Your task to perform on an android device: stop showing notifications on the lock screen Image 0: 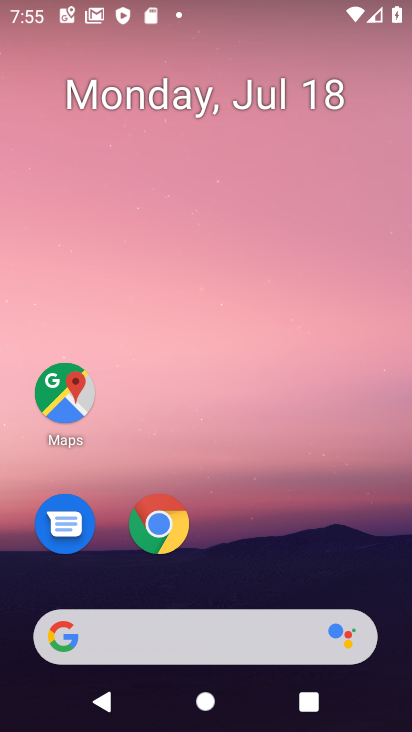
Step 0: drag from (254, 519) to (270, 1)
Your task to perform on an android device: stop showing notifications on the lock screen Image 1: 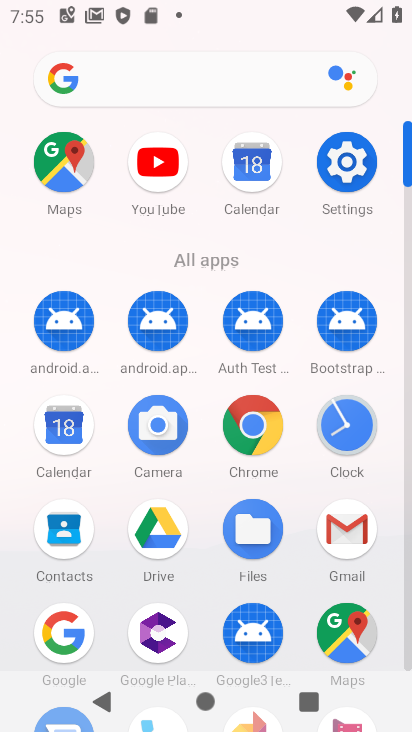
Step 1: click (353, 158)
Your task to perform on an android device: stop showing notifications on the lock screen Image 2: 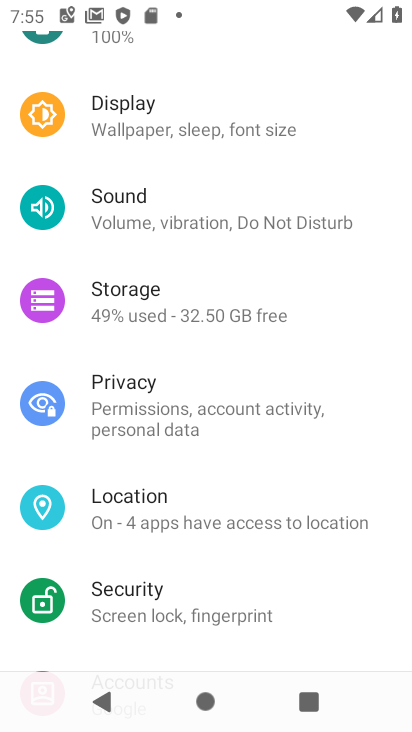
Step 2: drag from (253, 240) to (263, 555)
Your task to perform on an android device: stop showing notifications on the lock screen Image 3: 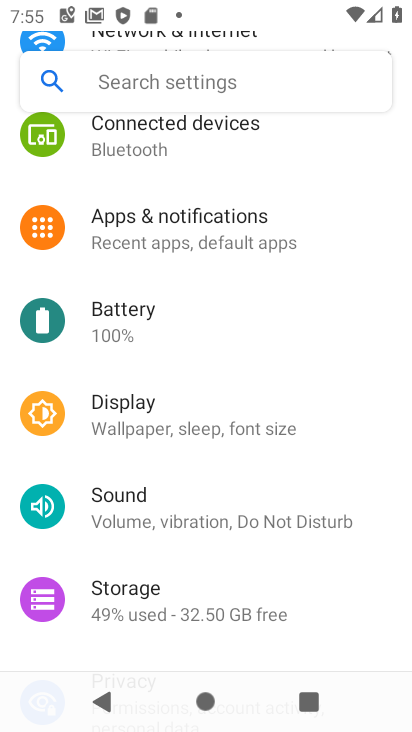
Step 3: click (225, 221)
Your task to perform on an android device: stop showing notifications on the lock screen Image 4: 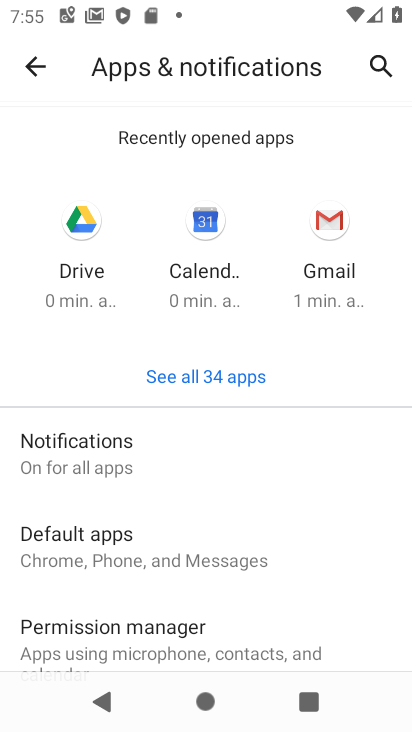
Step 4: click (92, 460)
Your task to perform on an android device: stop showing notifications on the lock screen Image 5: 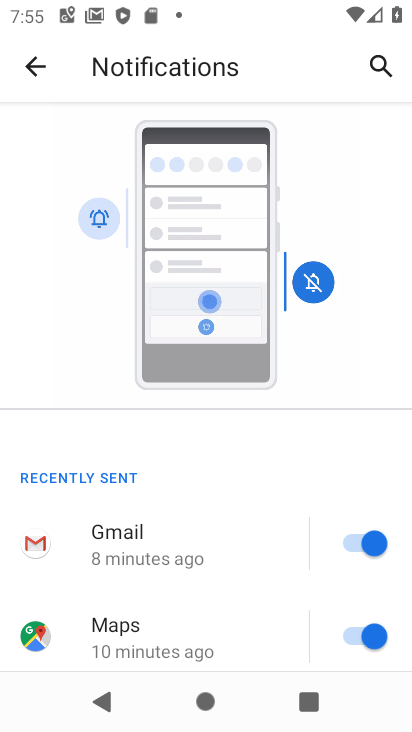
Step 5: drag from (193, 513) to (224, 118)
Your task to perform on an android device: stop showing notifications on the lock screen Image 6: 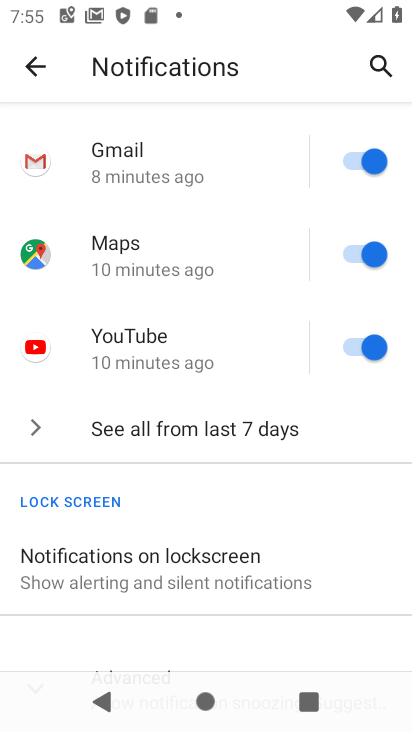
Step 6: click (130, 555)
Your task to perform on an android device: stop showing notifications on the lock screen Image 7: 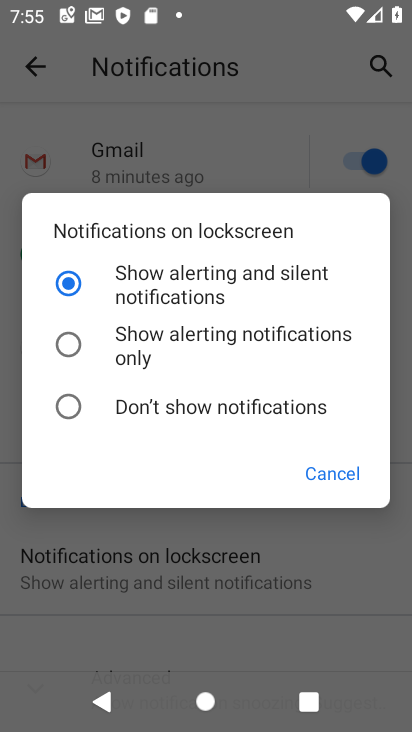
Step 7: click (72, 398)
Your task to perform on an android device: stop showing notifications on the lock screen Image 8: 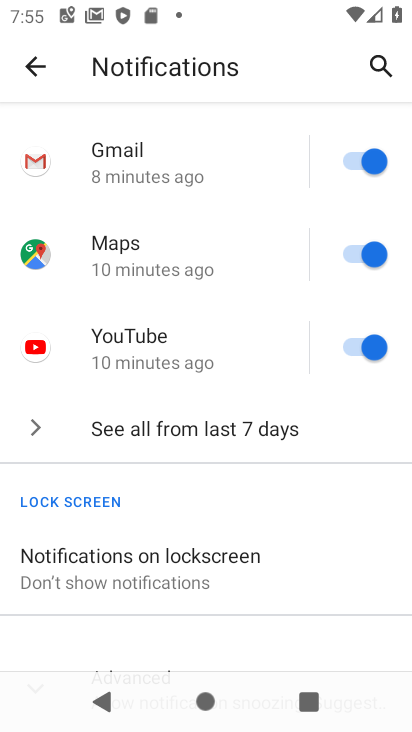
Step 8: task complete